Your task to perform on an android device: change the clock display to show seconds Image 0: 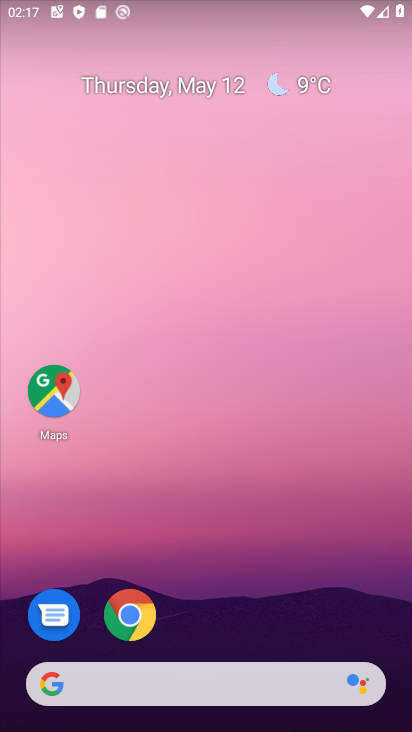
Step 0: drag from (191, 681) to (120, 26)
Your task to perform on an android device: change the clock display to show seconds Image 1: 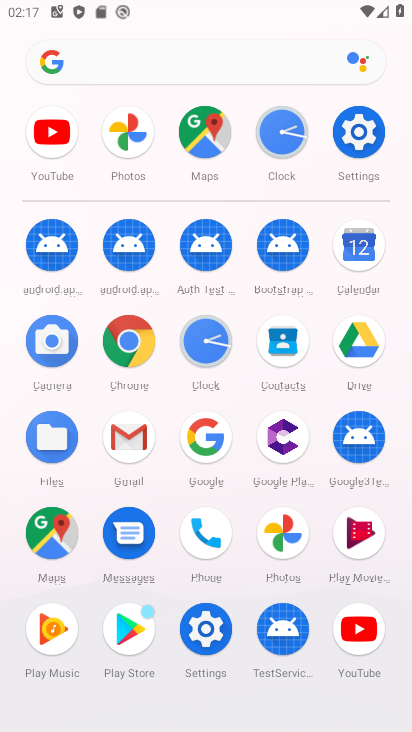
Step 1: click (210, 351)
Your task to perform on an android device: change the clock display to show seconds Image 2: 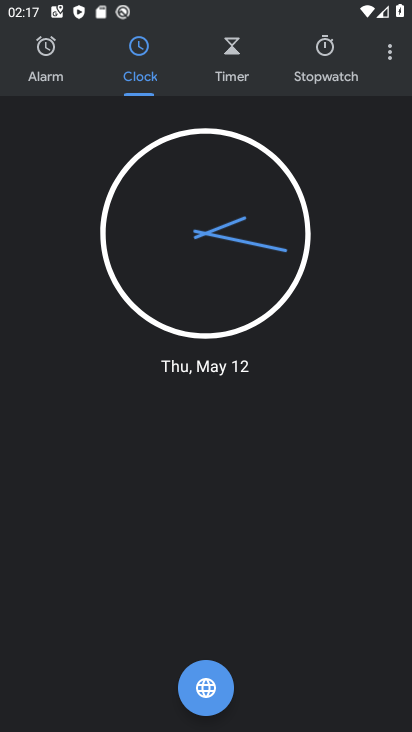
Step 2: click (379, 60)
Your task to perform on an android device: change the clock display to show seconds Image 3: 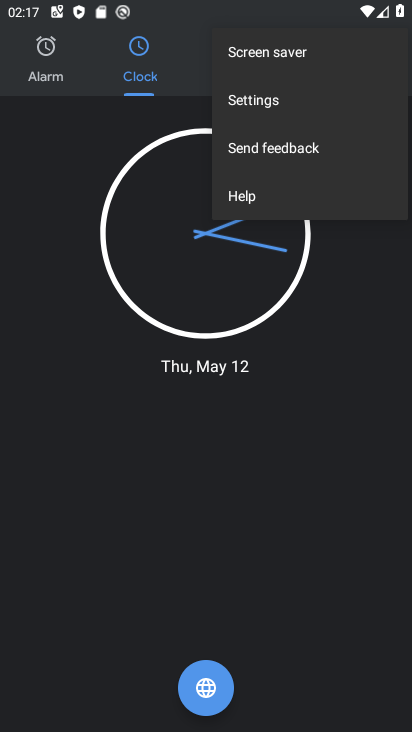
Step 3: click (281, 110)
Your task to perform on an android device: change the clock display to show seconds Image 4: 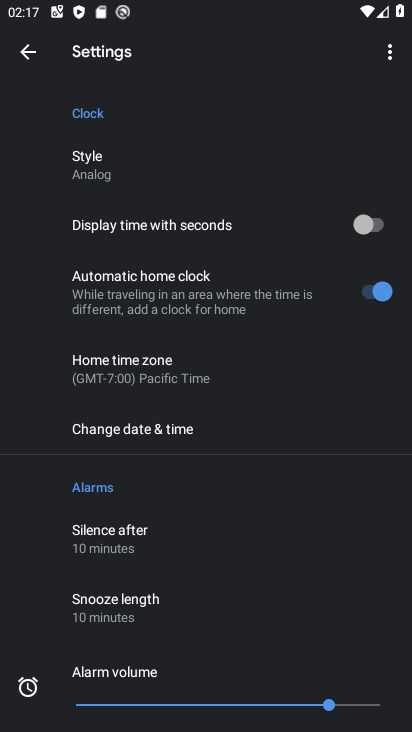
Step 4: click (374, 234)
Your task to perform on an android device: change the clock display to show seconds Image 5: 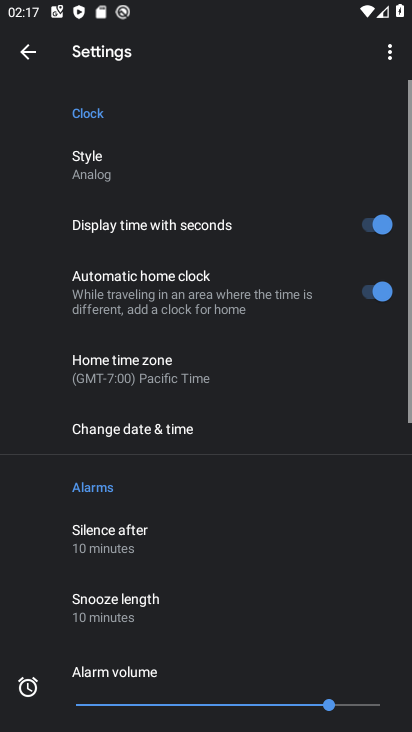
Step 5: task complete